Your task to perform on an android device: Open the web browser Image 0: 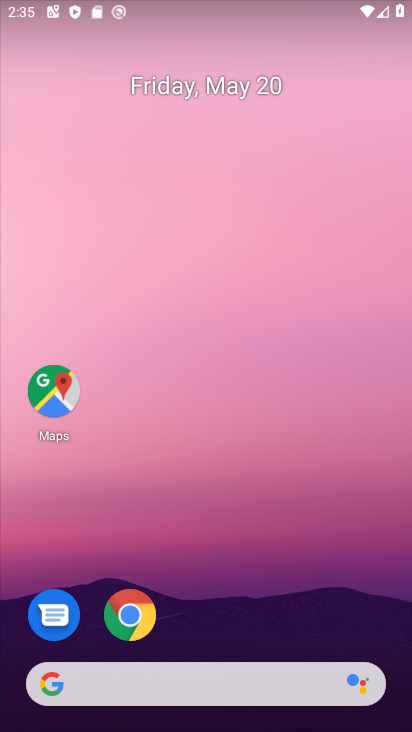
Step 0: click (121, 615)
Your task to perform on an android device: Open the web browser Image 1: 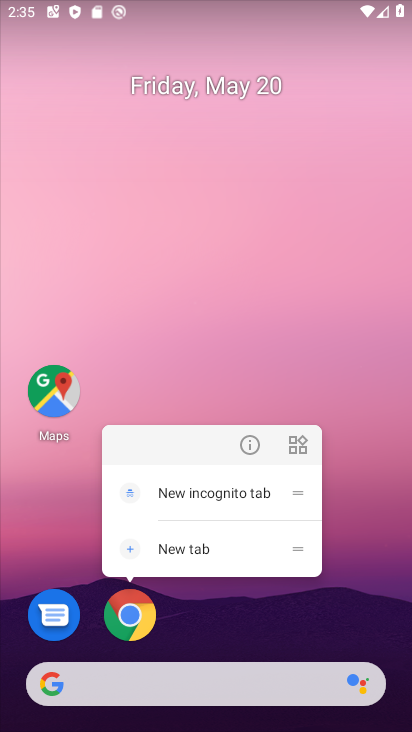
Step 1: click (248, 370)
Your task to perform on an android device: Open the web browser Image 2: 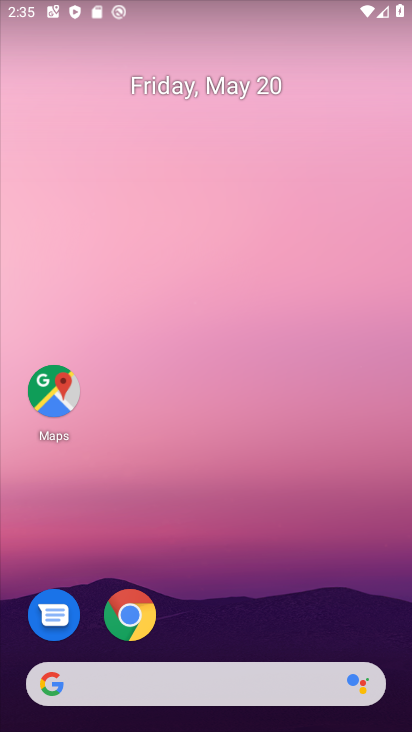
Step 2: click (125, 622)
Your task to perform on an android device: Open the web browser Image 3: 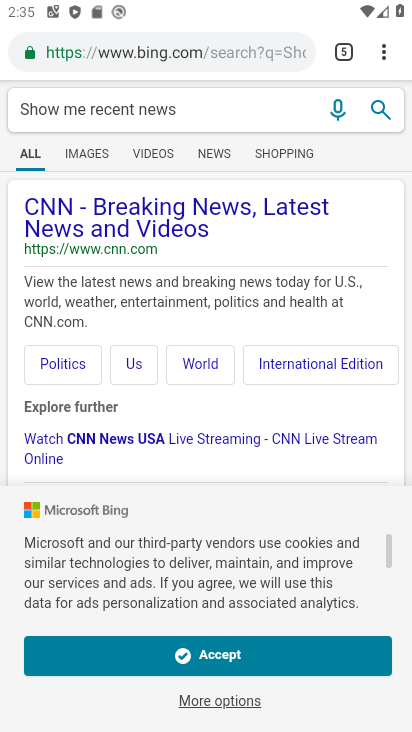
Step 3: task complete